Your task to perform on an android device: change your default location settings in chrome Image 0: 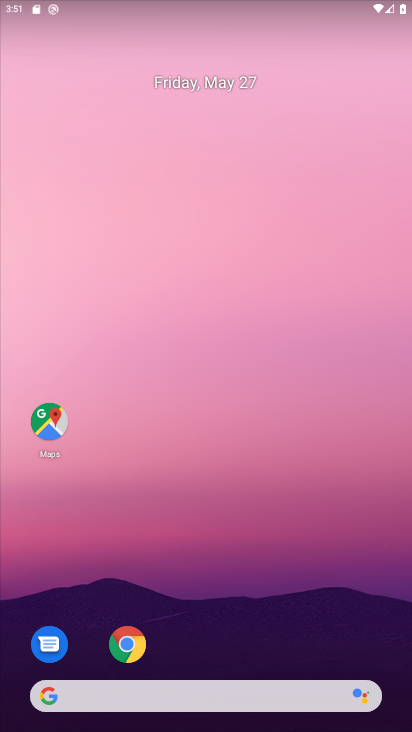
Step 0: drag from (295, 566) to (187, 38)
Your task to perform on an android device: change your default location settings in chrome Image 1: 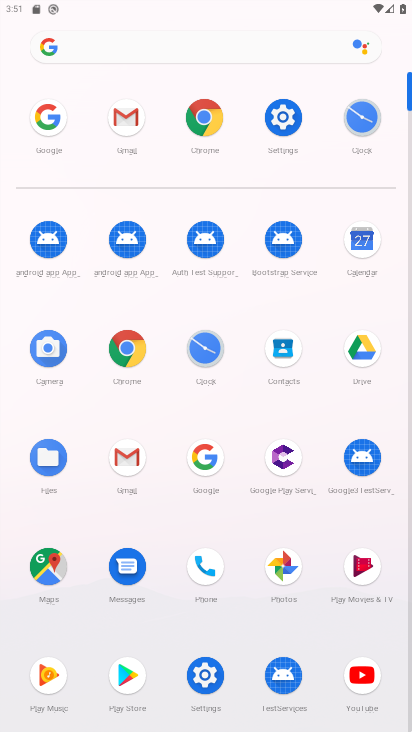
Step 1: click (130, 342)
Your task to perform on an android device: change your default location settings in chrome Image 2: 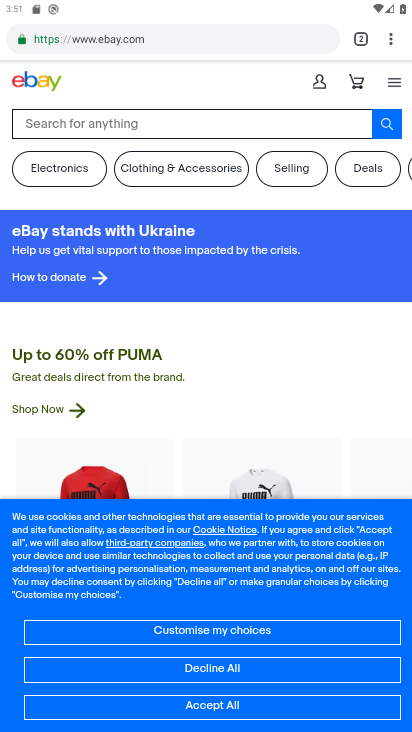
Step 2: click (392, 33)
Your task to perform on an android device: change your default location settings in chrome Image 3: 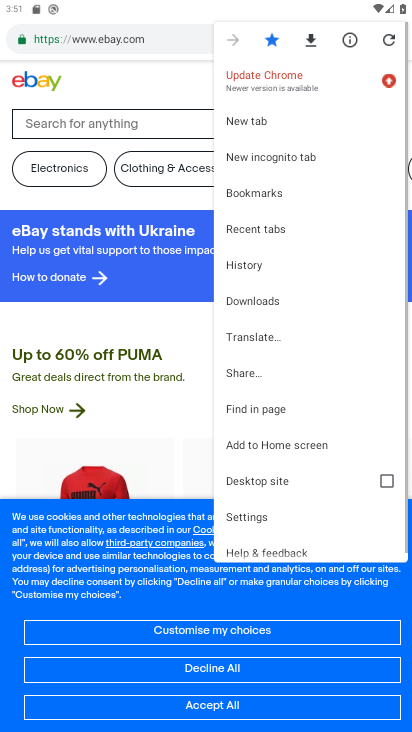
Step 3: click (268, 507)
Your task to perform on an android device: change your default location settings in chrome Image 4: 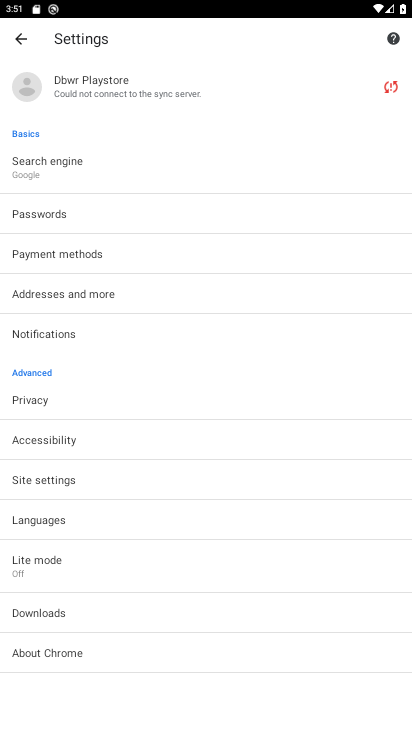
Step 4: click (91, 487)
Your task to perform on an android device: change your default location settings in chrome Image 5: 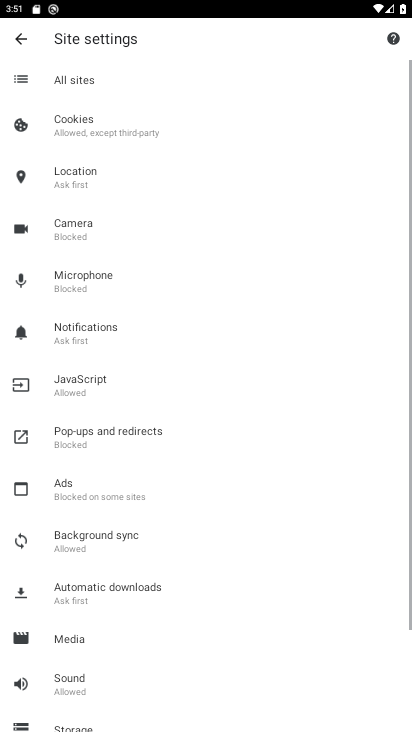
Step 5: click (146, 169)
Your task to perform on an android device: change your default location settings in chrome Image 6: 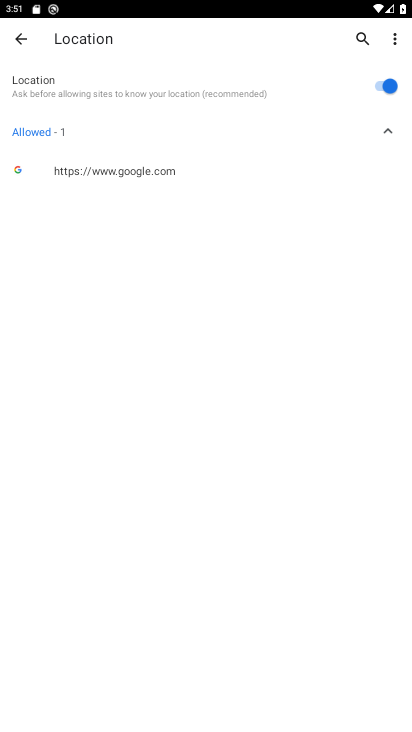
Step 6: click (393, 84)
Your task to perform on an android device: change your default location settings in chrome Image 7: 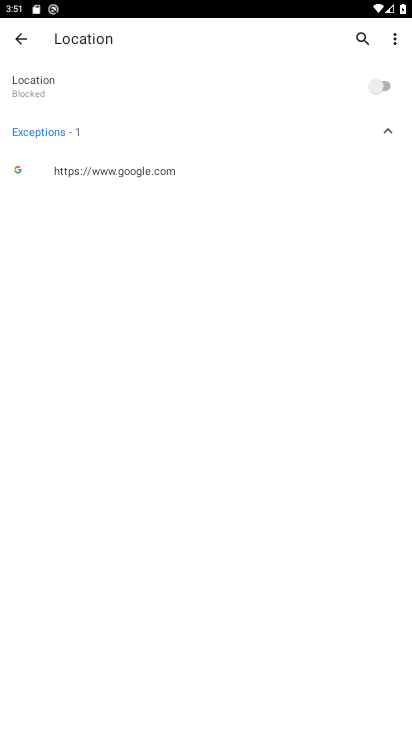
Step 7: task complete